Your task to perform on an android device: Open Youtube and go to the subscriptions tab Image 0: 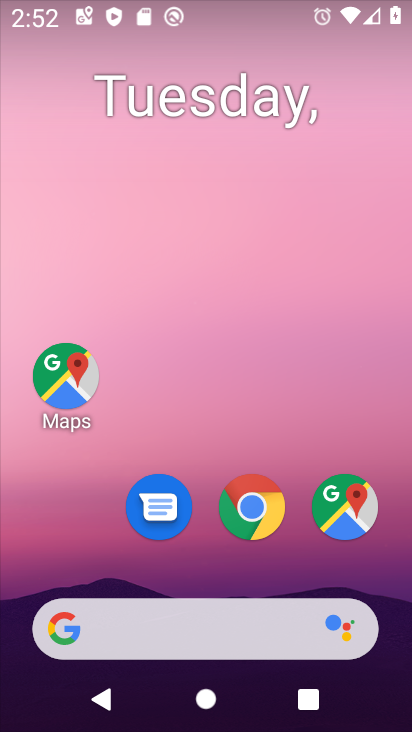
Step 0: drag from (300, 537) to (294, 145)
Your task to perform on an android device: Open Youtube and go to the subscriptions tab Image 1: 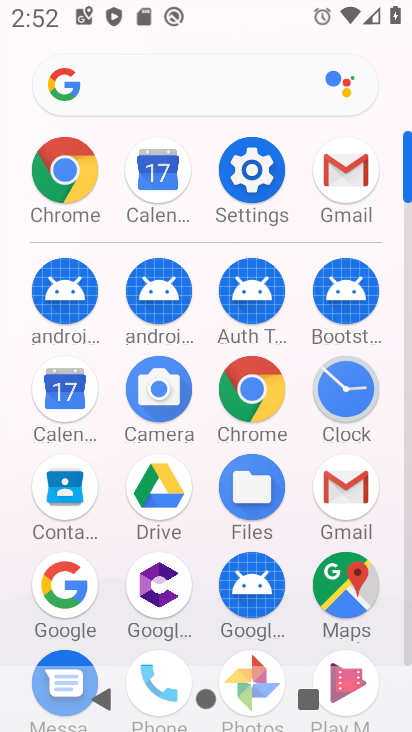
Step 1: drag from (294, 630) to (282, 417)
Your task to perform on an android device: Open Youtube and go to the subscriptions tab Image 2: 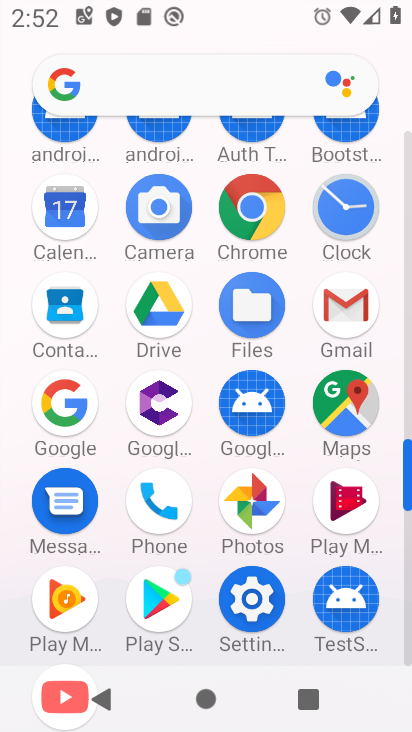
Step 2: click (329, 507)
Your task to perform on an android device: Open Youtube and go to the subscriptions tab Image 3: 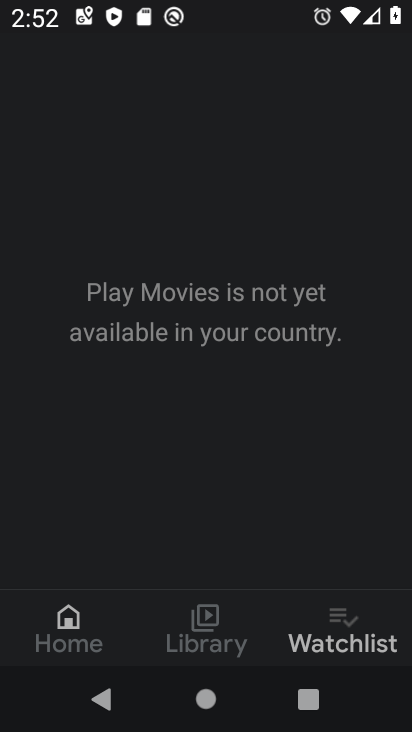
Step 3: press back button
Your task to perform on an android device: Open Youtube and go to the subscriptions tab Image 4: 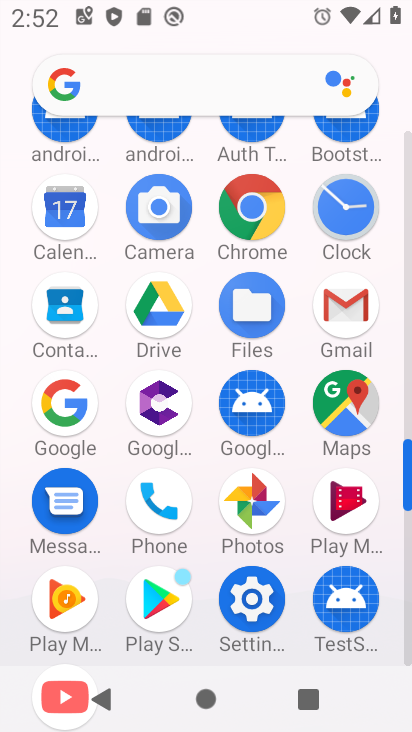
Step 4: drag from (147, 544) to (189, 317)
Your task to perform on an android device: Open Youtube and go to the subscriptions tab Image 5: 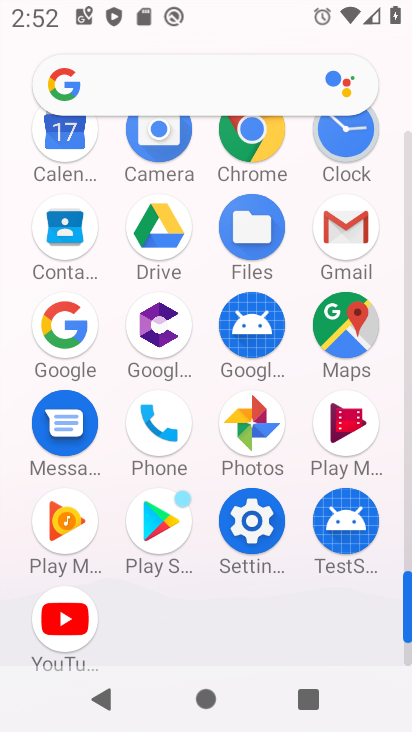
Step 5: click (65, 628)
Your task to perform on an android device: Open Youtube and go to the subscriptions tab Image 6: 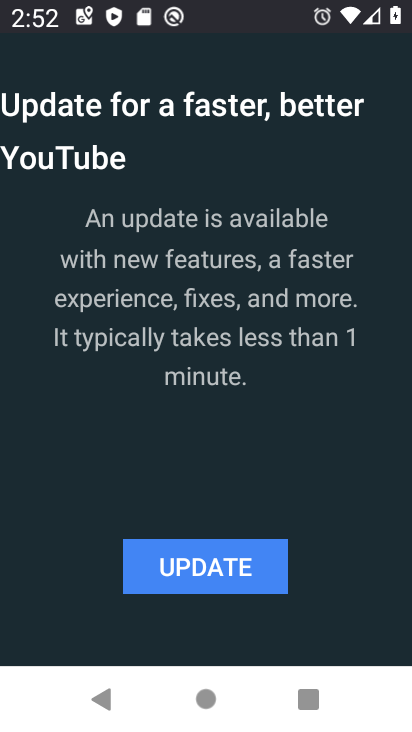
Step 6: task complete